Your task to perform on an android device: turn off sleep mode Image 0: 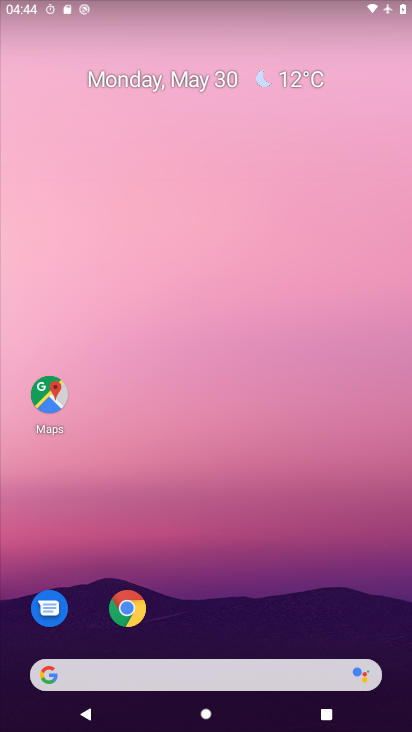
Step 0: drag from (262, 544) to (112, 103)
Your task to perform on an android device: turn off sleep mode Image 1: 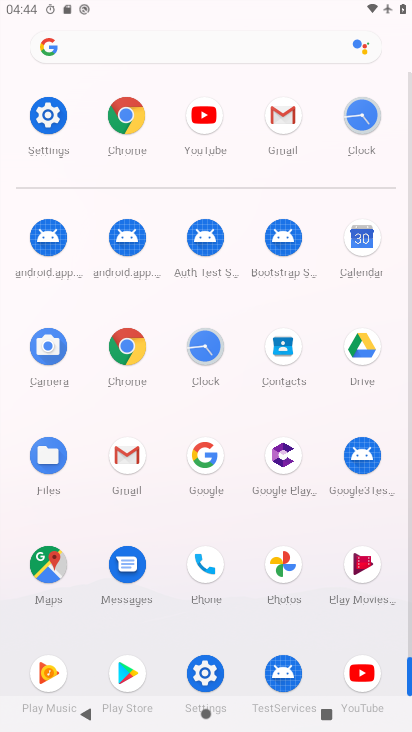
Step 1: click (61, 144)
Your task to perform on an android device: turn off sleep mode Image 2: 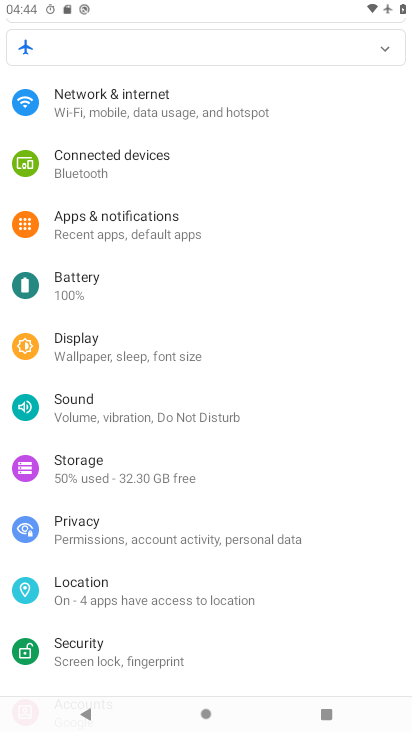
Step 2: click (138, 351)
Your task to perform on an android device: turn off sleep mode Image 3: 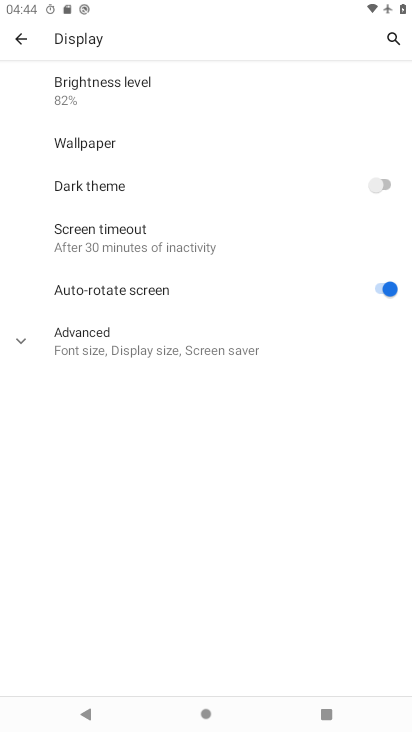
Step 3: task complete